Your task to perform on an android device: uninstall "Google Home" Image 0: 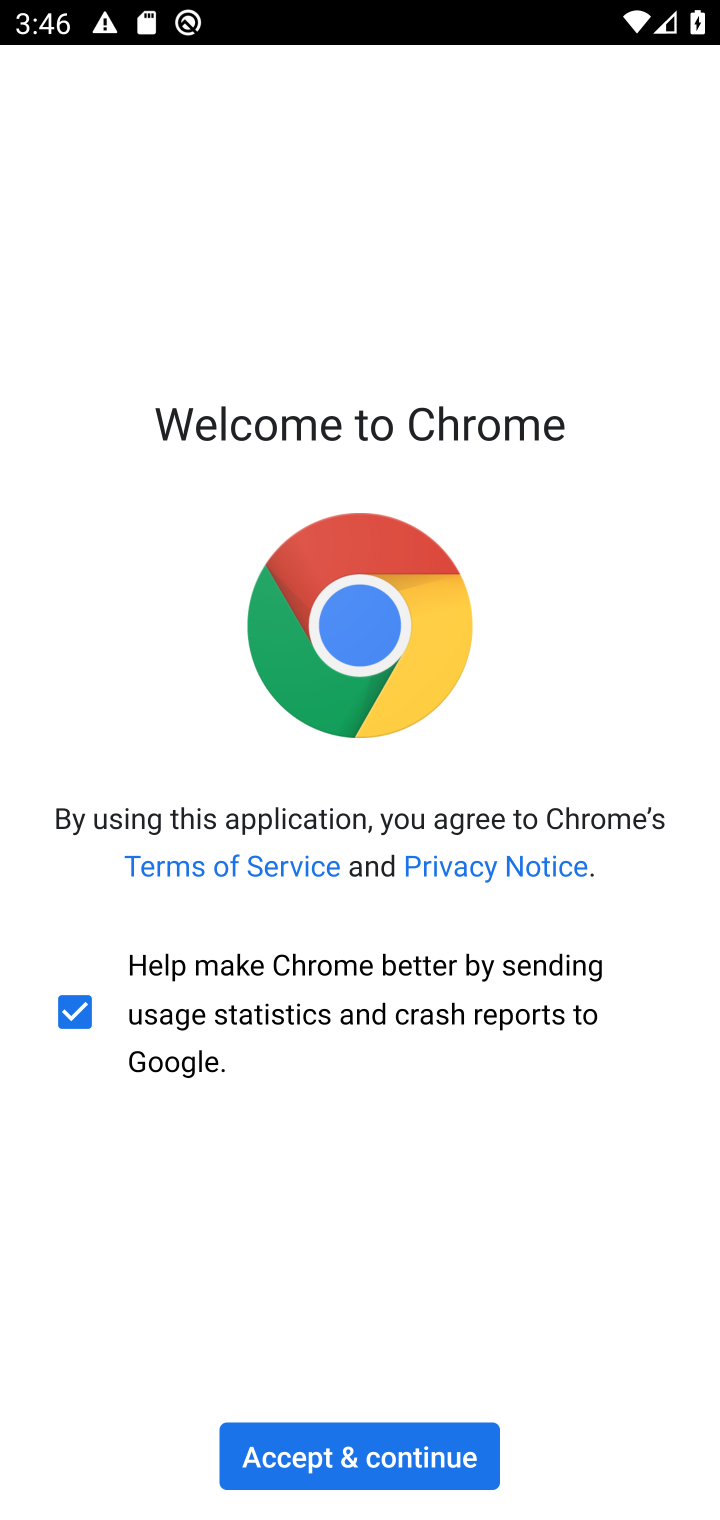
Step 0: press home button
Your task to perform on an android device: uninstall "Google Home" Image 1: 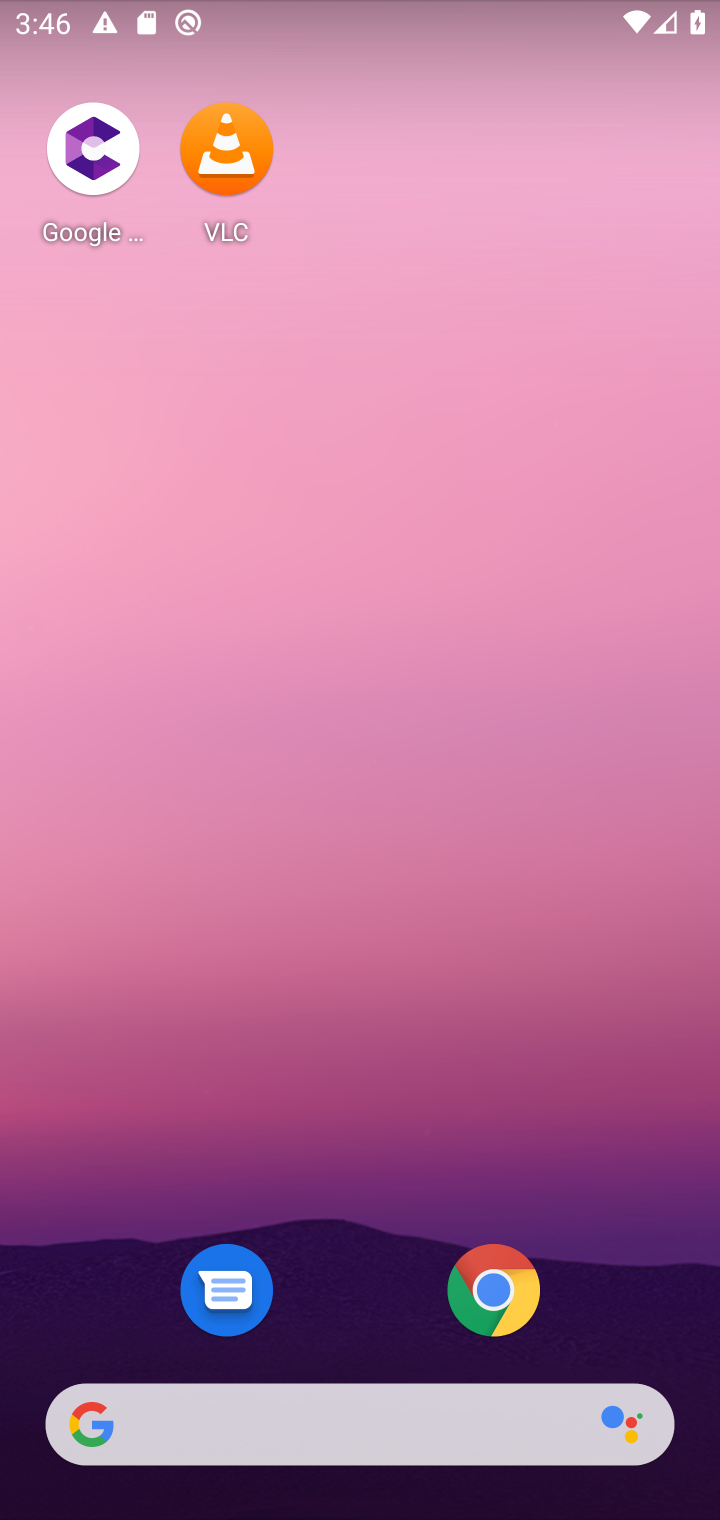
Step 1: drag from (345, 1153) to (602, 46)
Your task to perform on an android device: uninstall "Google Home" Image 2: 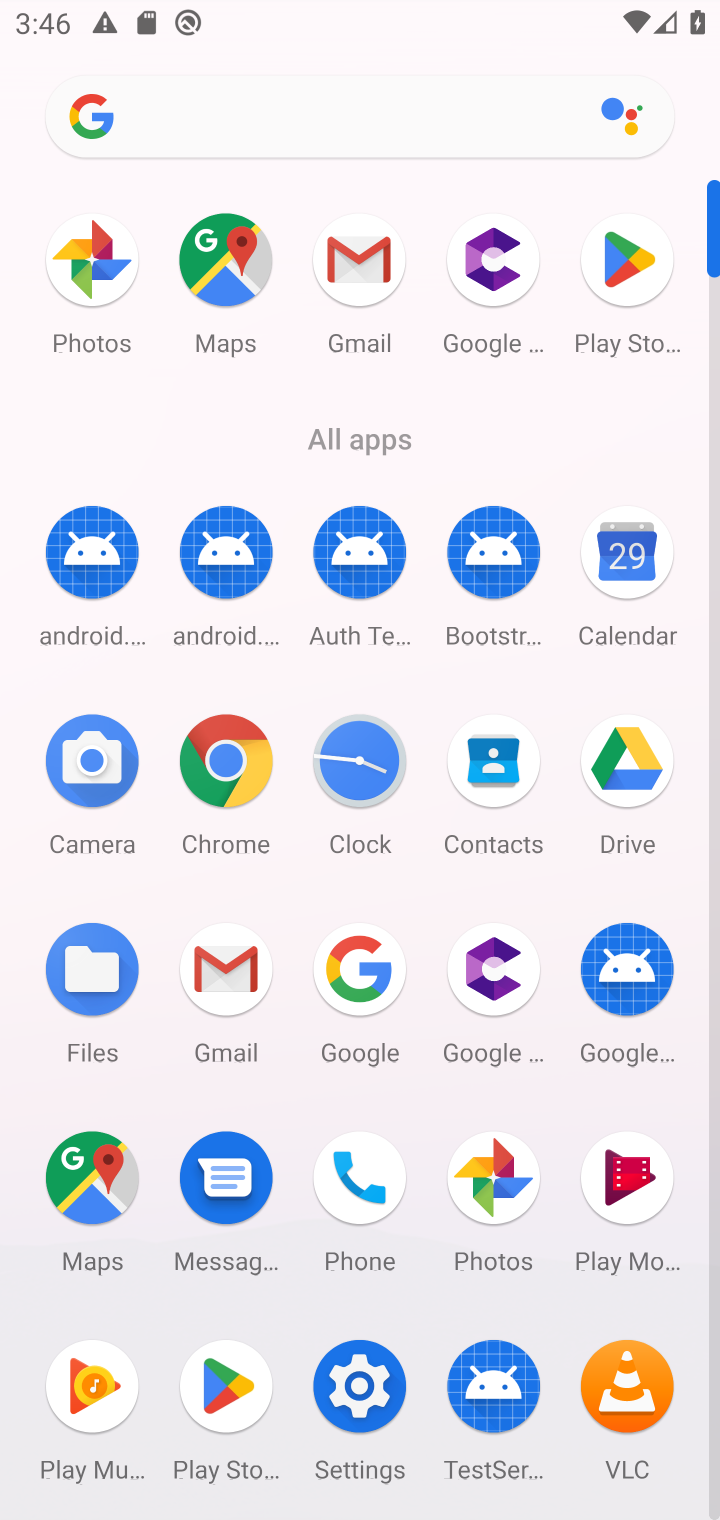
Step 2: click (630, 238)
Your task to perform on an android device: uninstall "Google Home" Image 3: 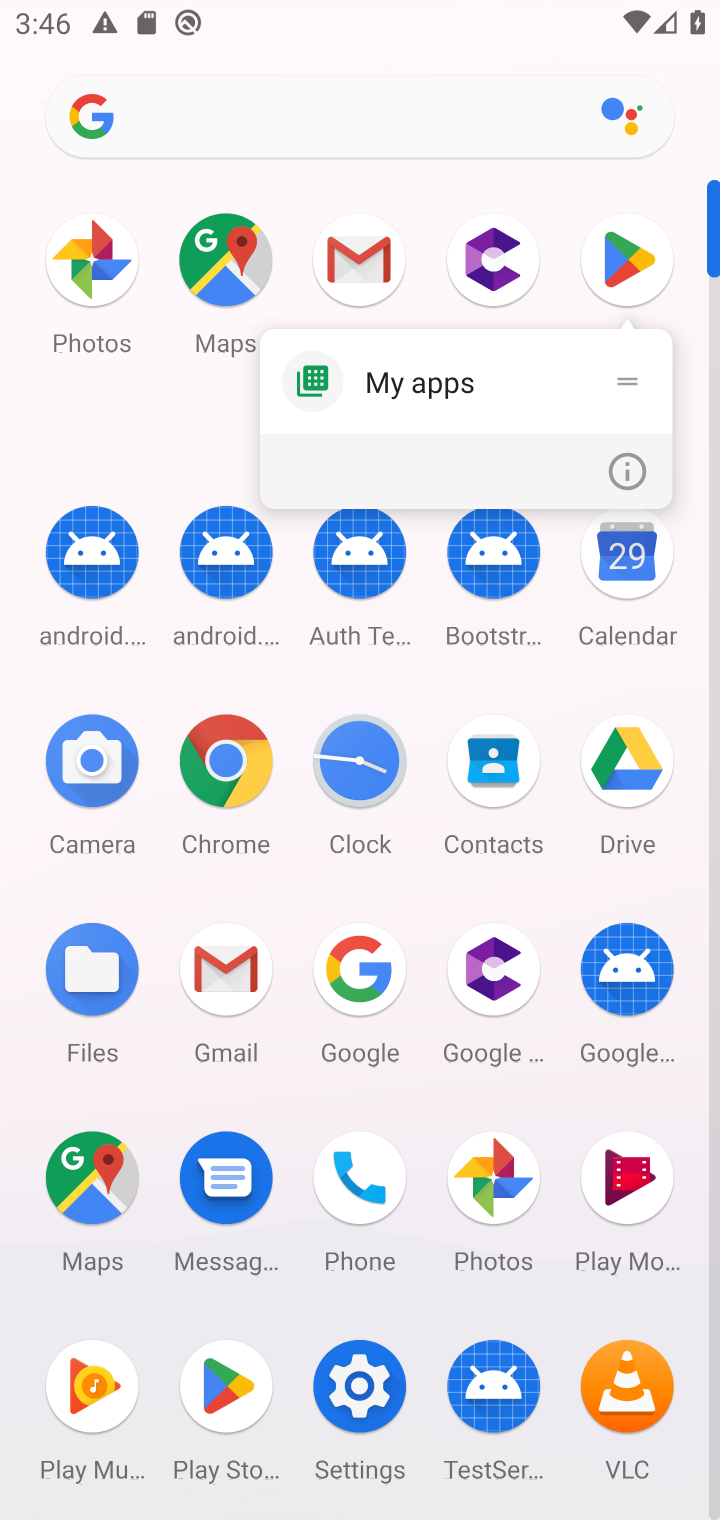
Step 3: click (627, 258)
Your task to perform on an android device: uninstall "Google Home" Image 4: 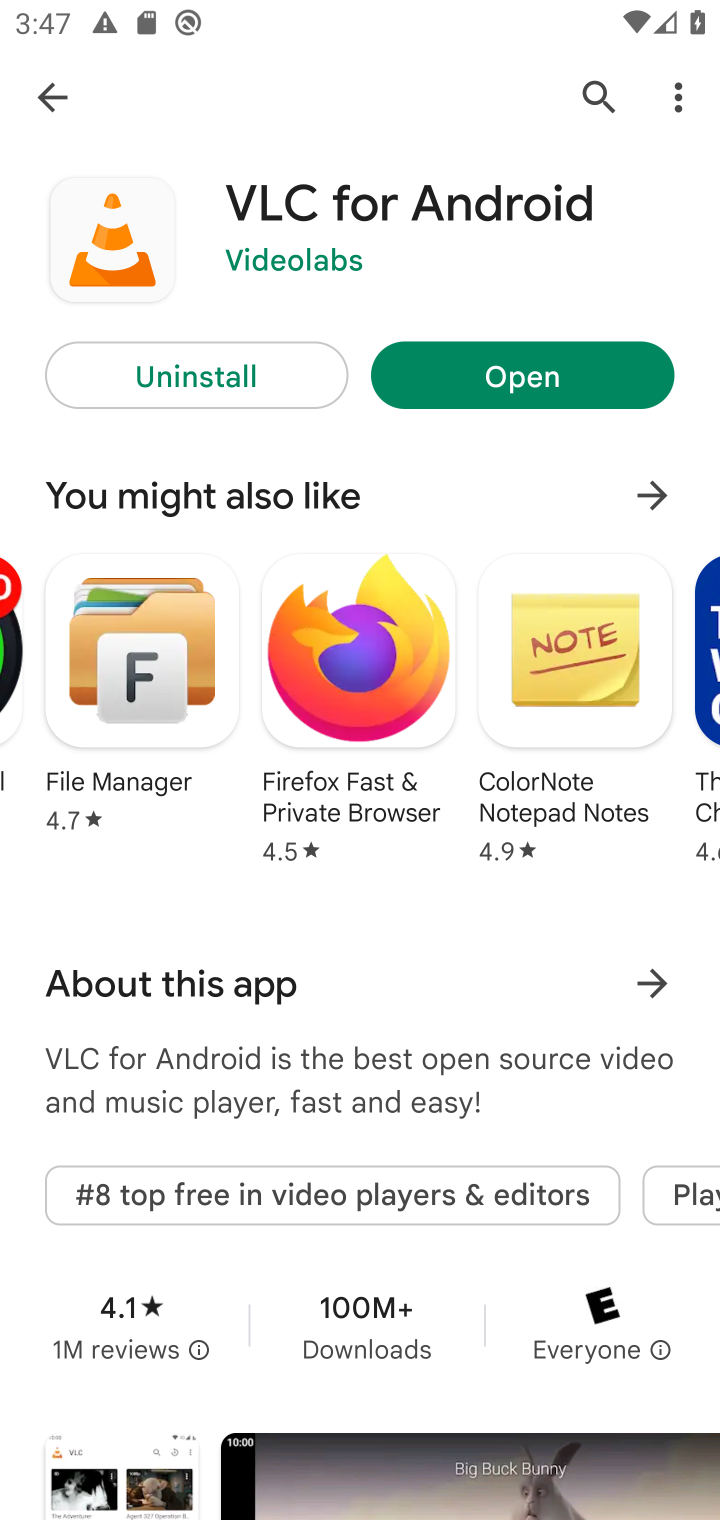
Step 4: click (54, 87)
Your task to perform on an android device: uninstall "Google Home" Image 5: 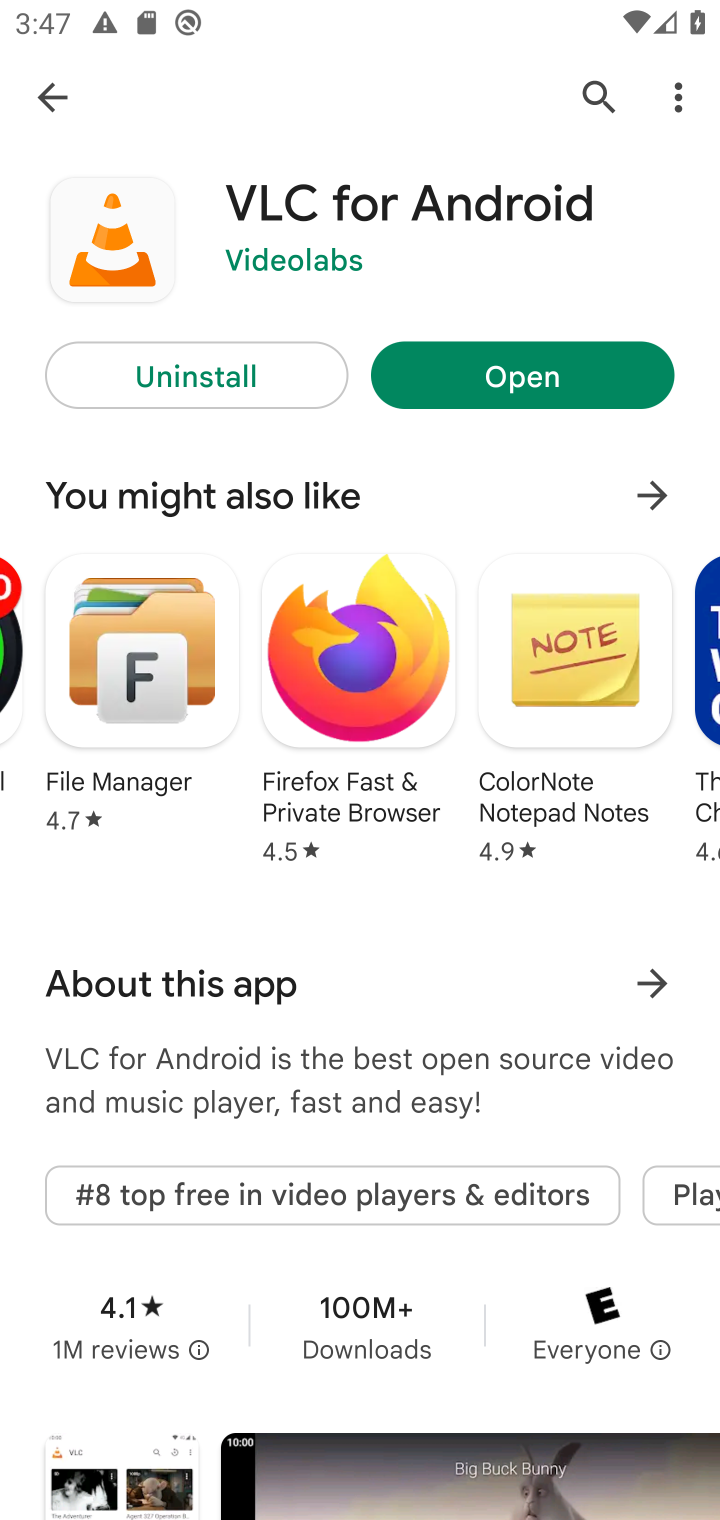
Step 5: click (60, 94)
Your task to perform on an android device: uninstall "Google Home" Image 6: 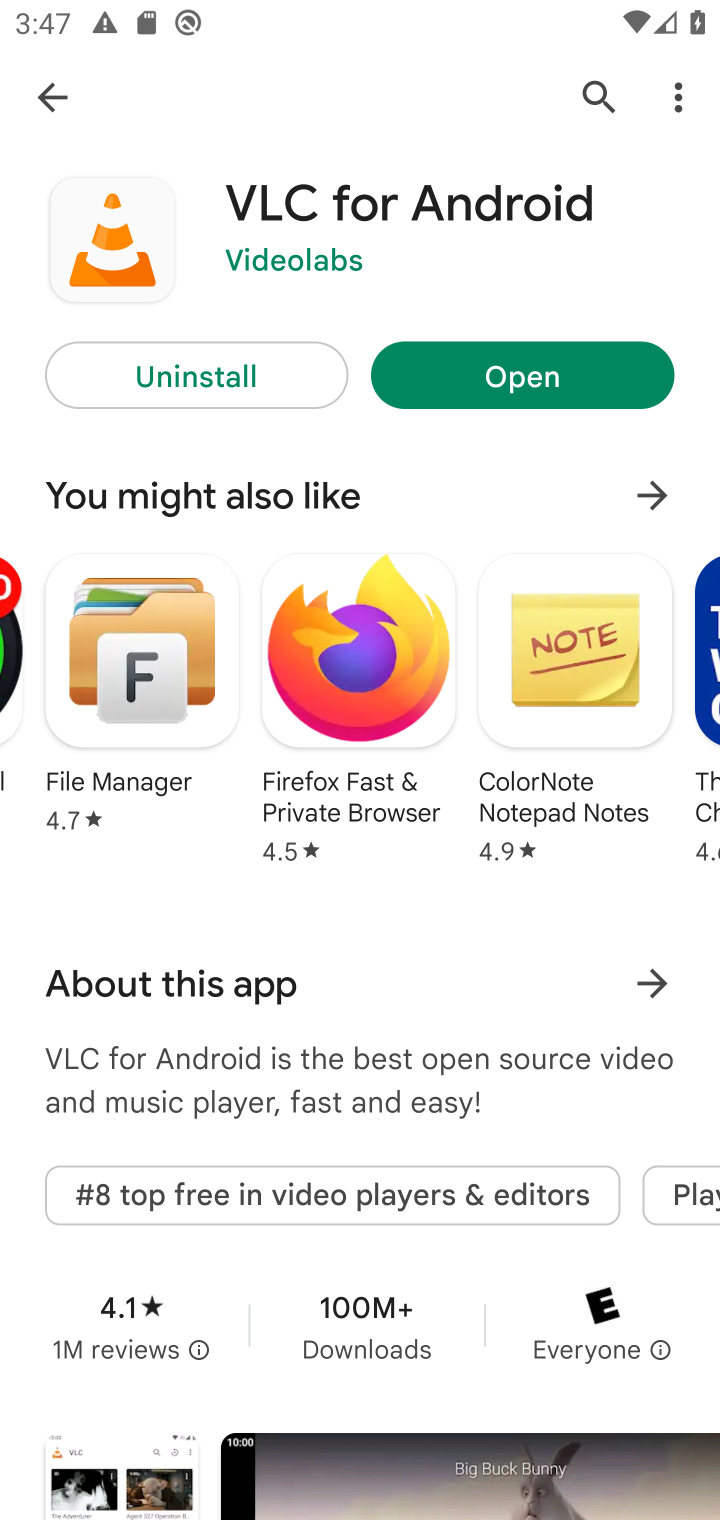
Step 6: click (49, 83)
Your task to perform on an android device: uninstall "Google Home" Image 7: 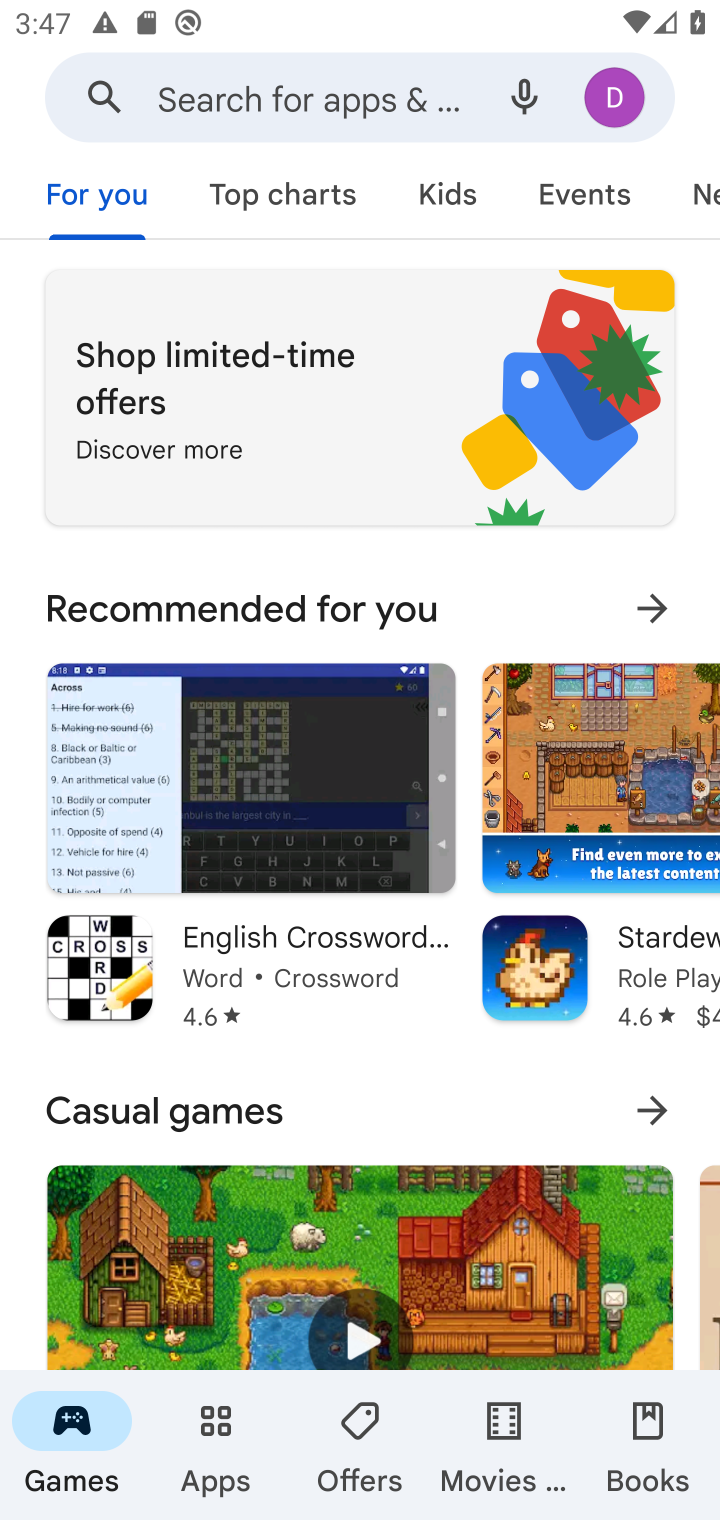
Step 7: click (170, 80)
Your task to perform on an android device: uninstall "Google Home" Image 8: 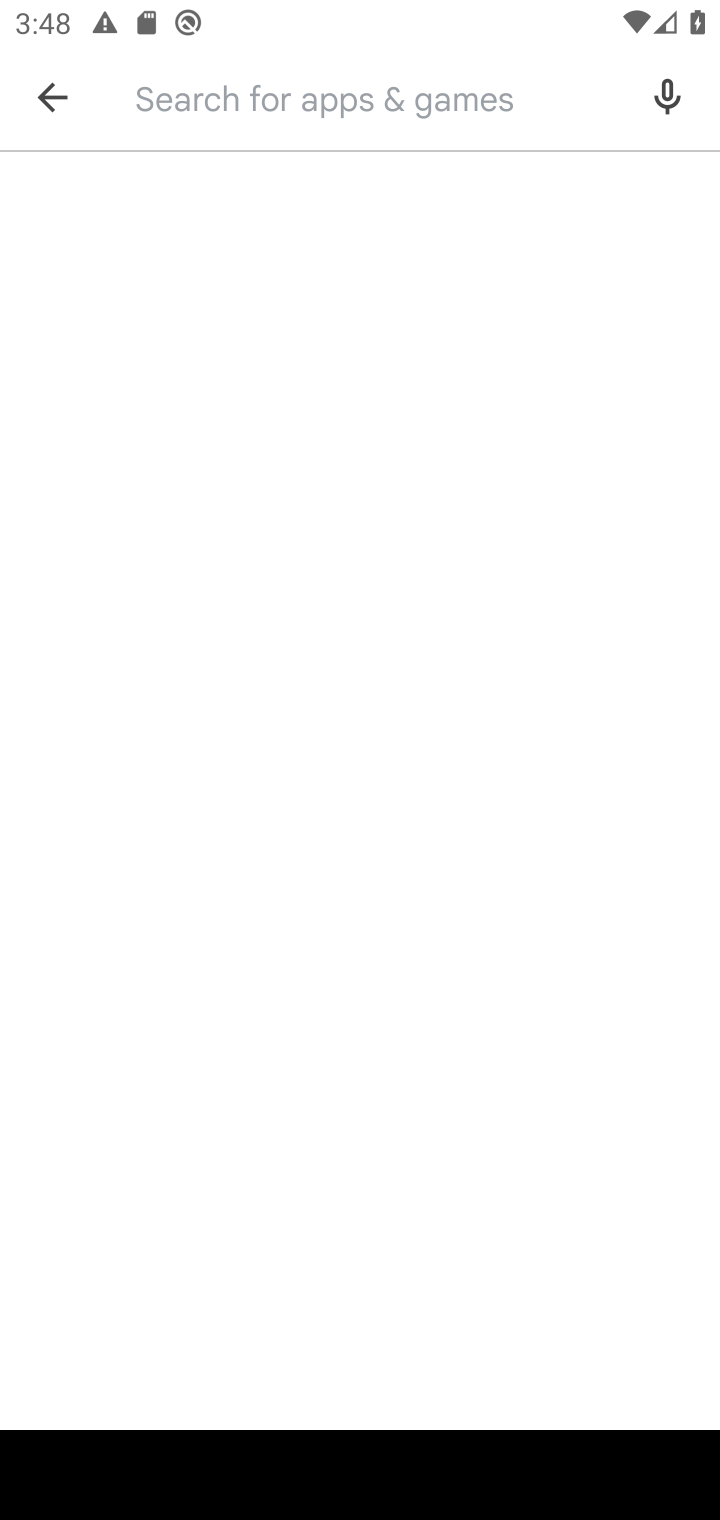
Step 8: type "Google Home"
Your task to perform on an android device: uninstall "Google Home" Image 9: 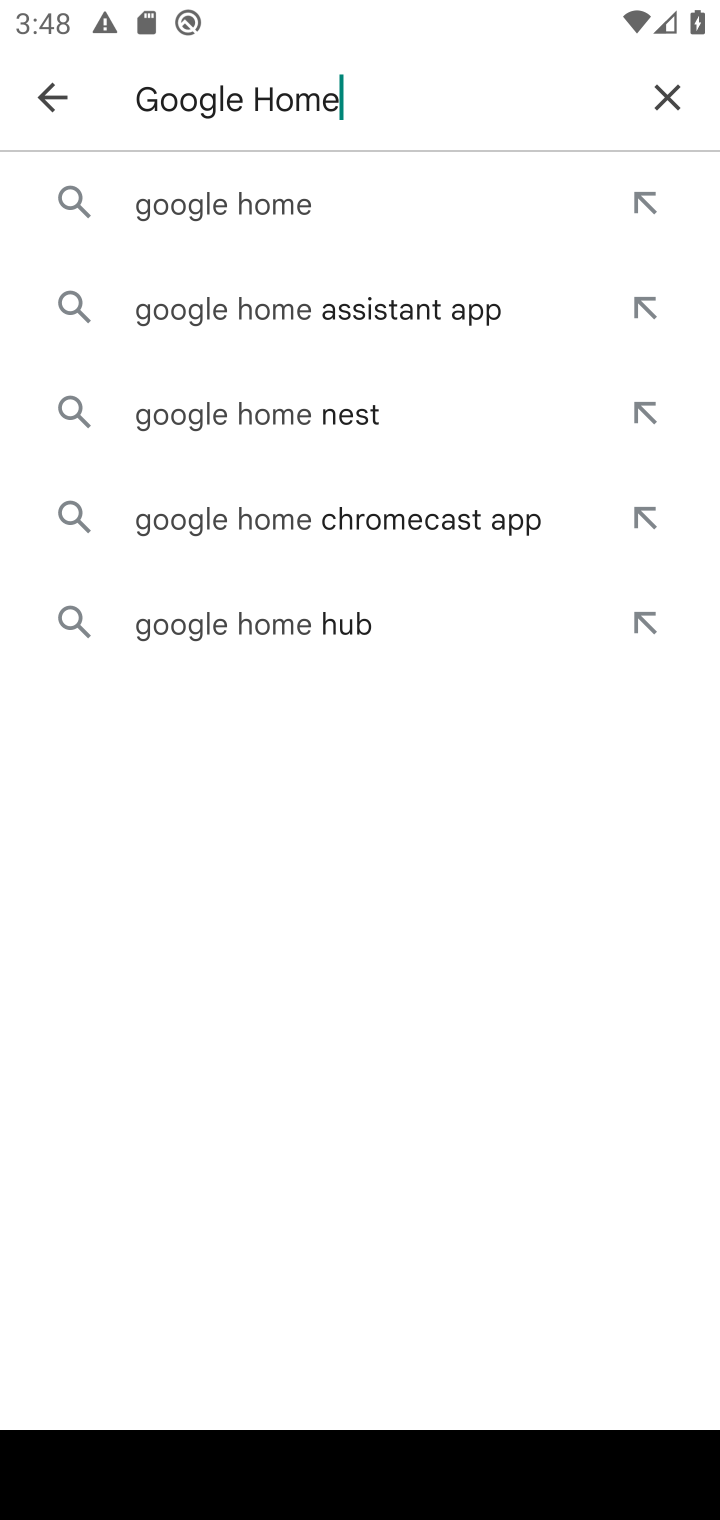
Step 9: click (202, 215)
Your task to perform on an android device: uninstall "Google Home" Image 10: 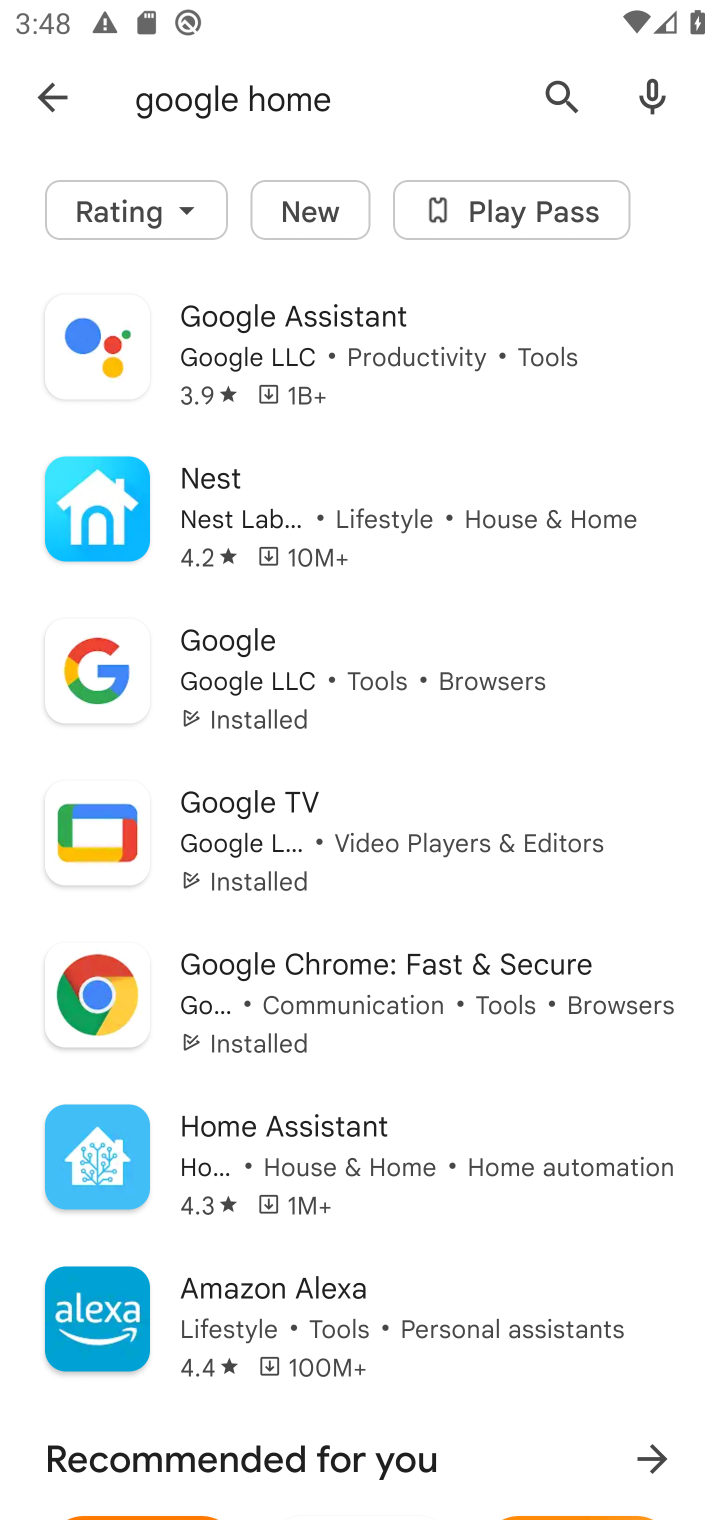
Step 10: click (261, 1064)
Your task to perform on an android device: uninstall "Google Home" Image 11: 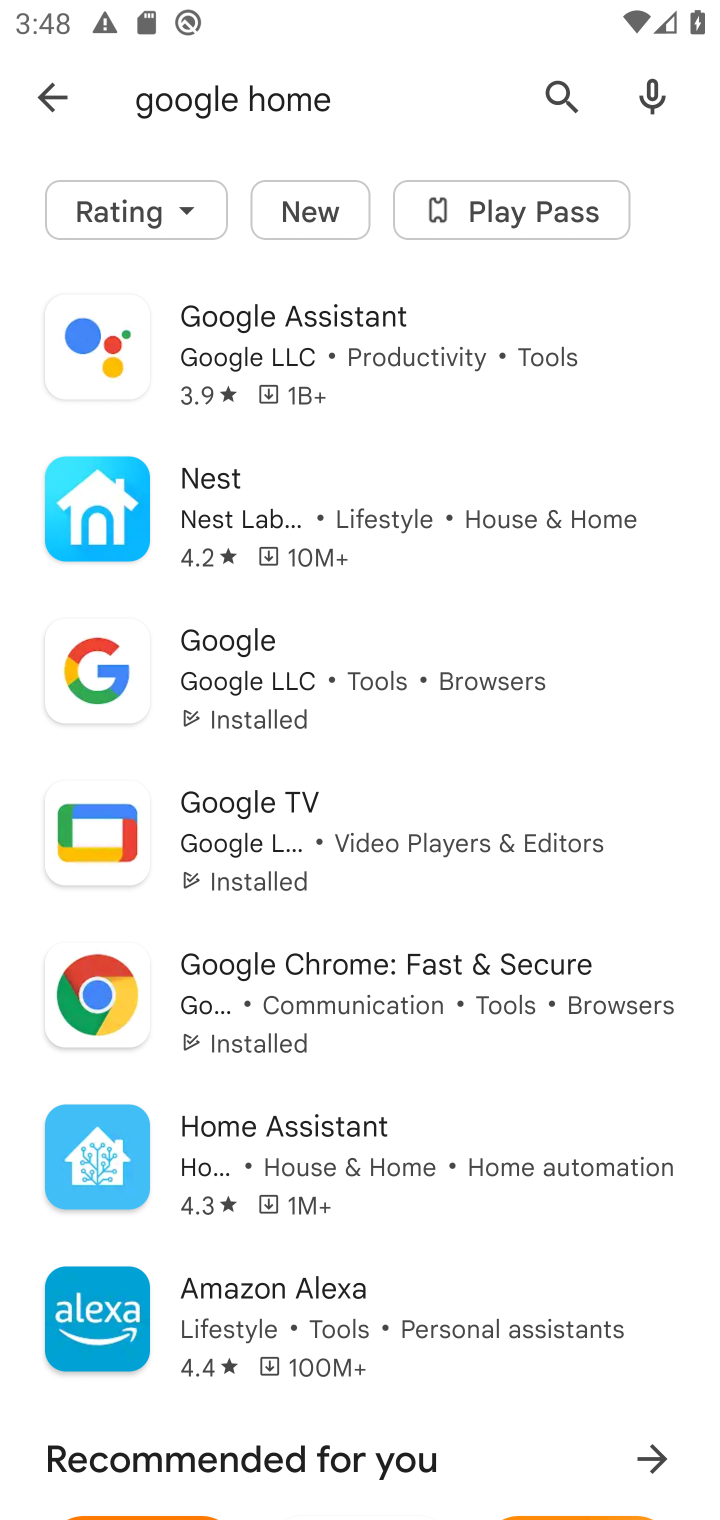
Step 11: task complete